Your task to perform on an android device: Show the shopping cart on ebay.com. Search for sony triple a on ebay.com, select the first entry, and add it to the cart. Image 0: 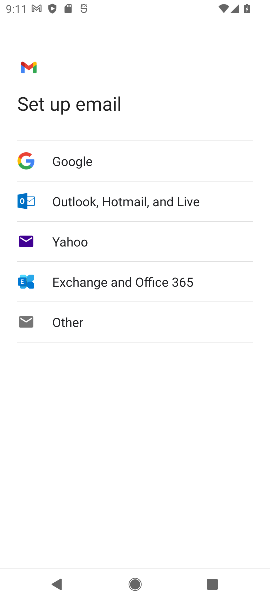
Step 0: task complete